Your task to perform on an android device: Open Reddit.com Image 0: 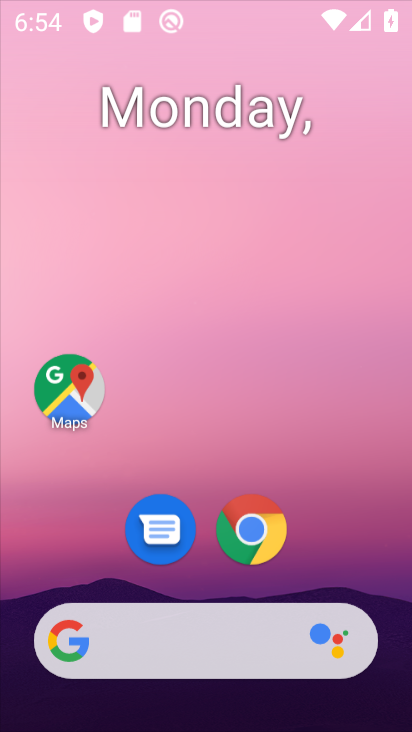
Step 0: click (254, 519)
Your task to perform on an android device: Open Reddit.com Image 1: 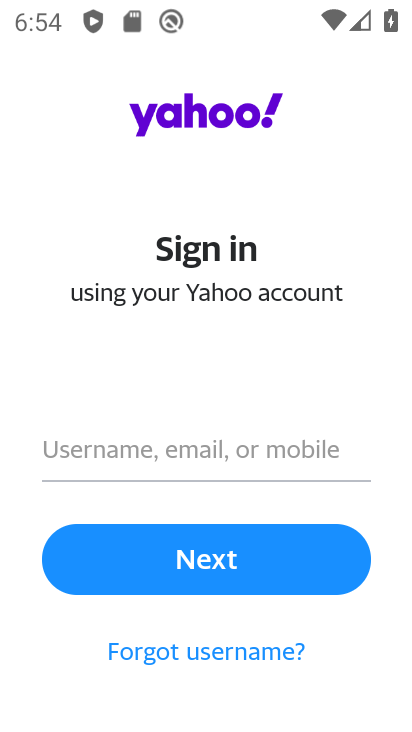
Step 1: press home button
Your task to perform on an android device: Open Reddit.com Image 2: 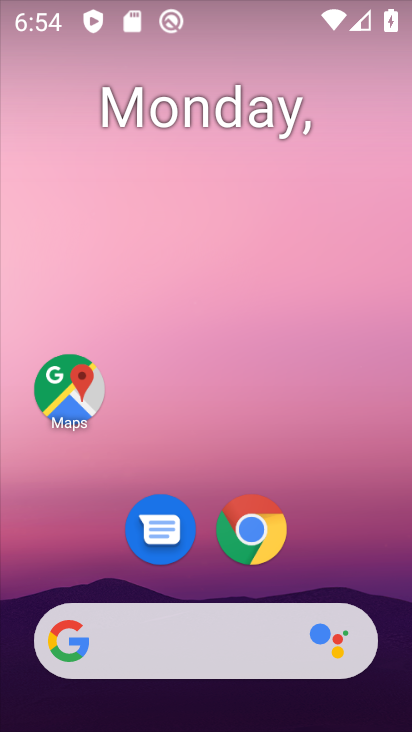
Step 2: click (253, 530)
Your task to perform on an android device: Open Reddit.com Image 3: 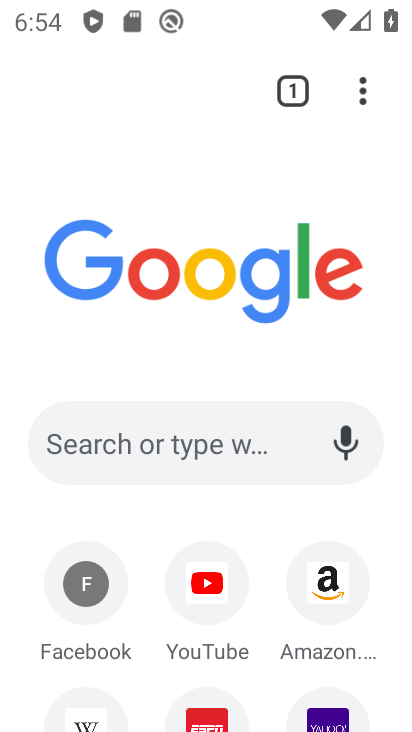
Step 3: click (212, 434)
Your task to perform on an android device: Open Reddit.com Image 4: 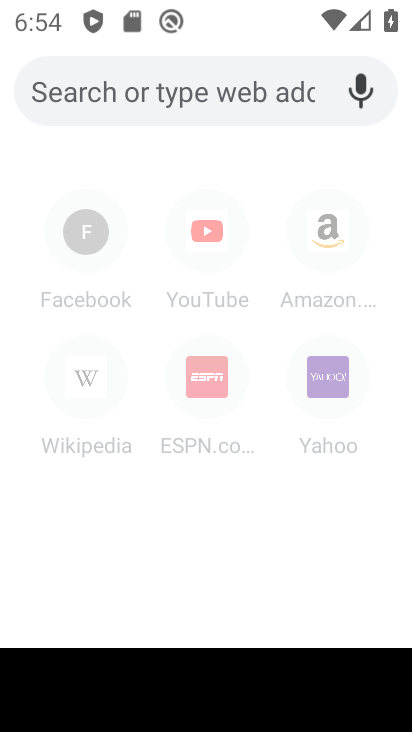
Step 4: type "reddit.com"
Your task to perform on an android device: Open Reddit.com Image 5: 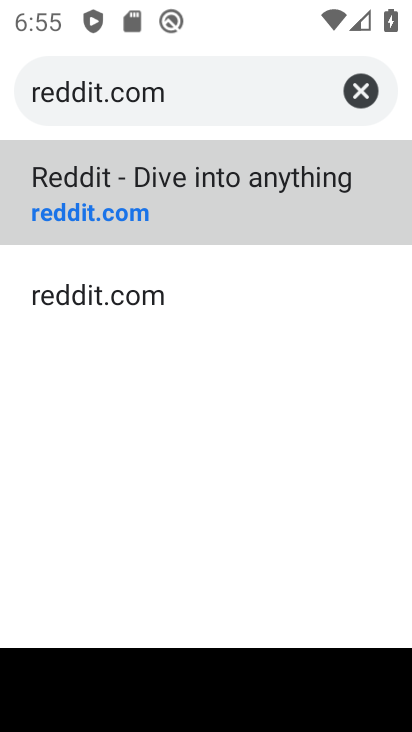
Step 5: click (234, 186)
Your task to perform on an android device: Open Reddit.com Image 6: 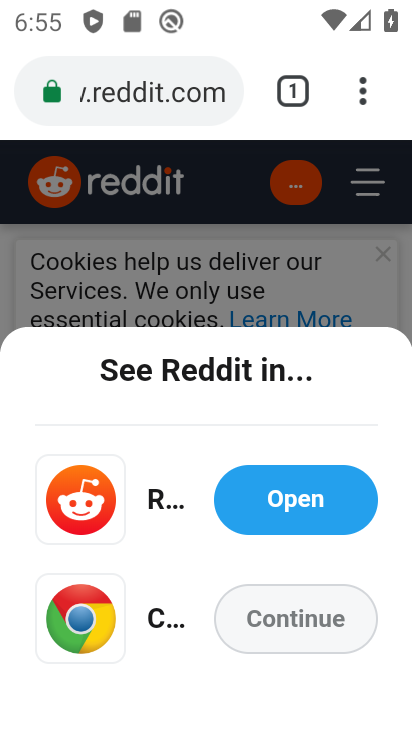
Step 6: click (272, 615)
Your task to perform on an android device: Open Reddit.com Image 7: 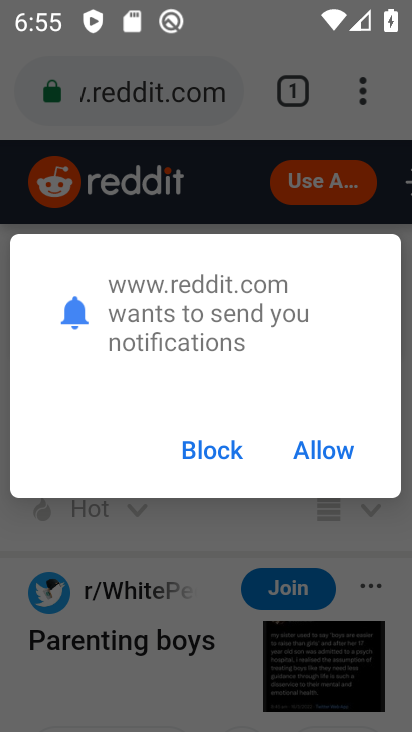
Step 7: click (308, 451)
Your task to perform on an android device: Open Reddit.com Image 8: 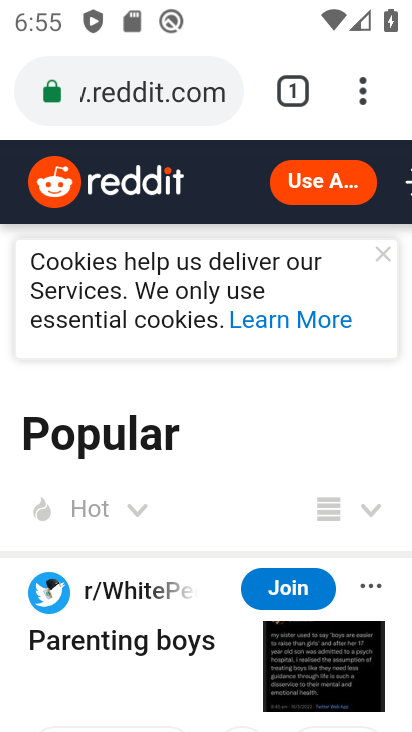
Step 8: task complete